Your task to perform on an android device: open app "The Home Depot" (install if not already installed) and enter user name: "taproot@icloud.com" and password: "executions" Image 0: 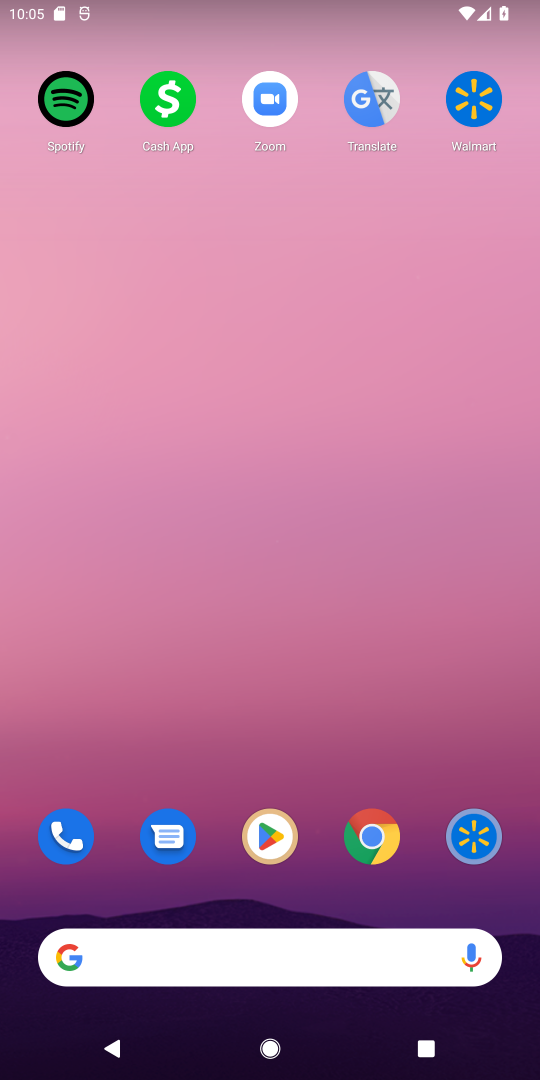
Step 0: click (268, 855)
Your task to perform on an android device: open app "The Home Depot" (install if not already installed) and enter user name: "taproot@icloud.com" and password: "executions" Image 1: 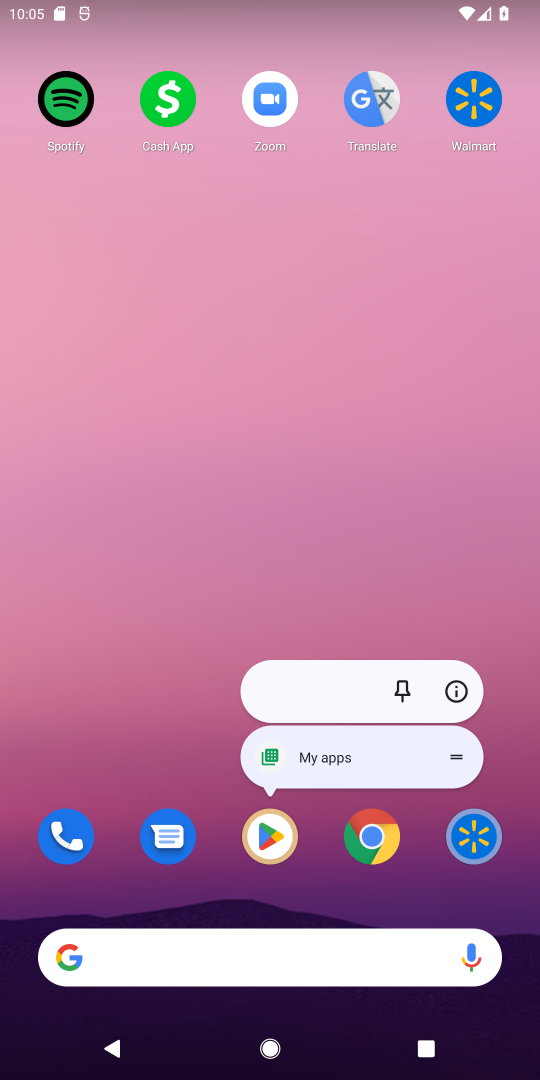
Step 1: click (268, 855)
Your task to perform on an android device: open app "The Home Depot" (install if not already installed) and enter user name: "taproot@icloud.com" and password: "executions" Image 2: 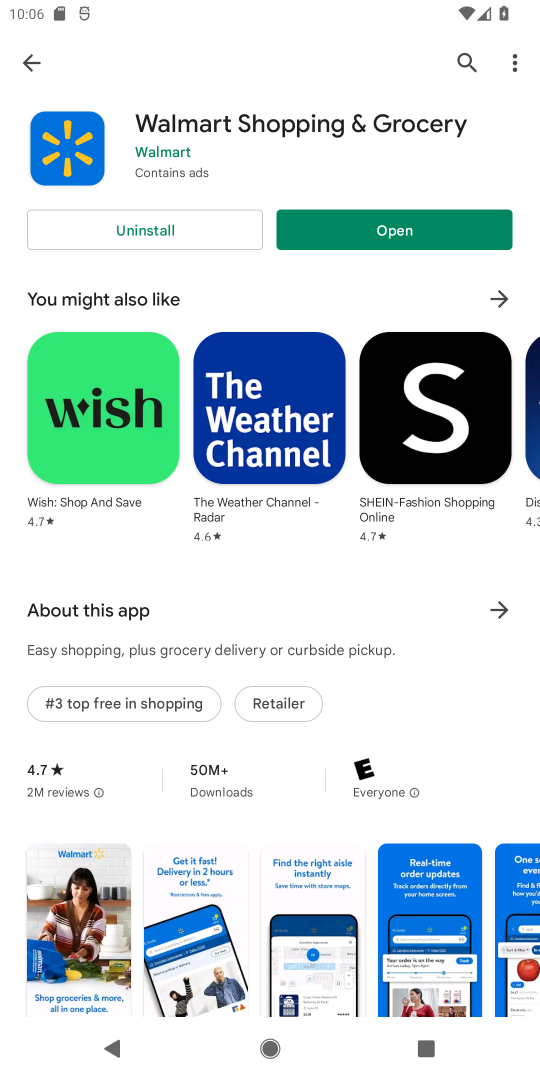
Step 2: click (457, 51)
Your task to perform on an android device: open app "The Home Depot" (install if not already installed) and enter user name: "taproot@icloud.com" and password: "executions" Image 3: 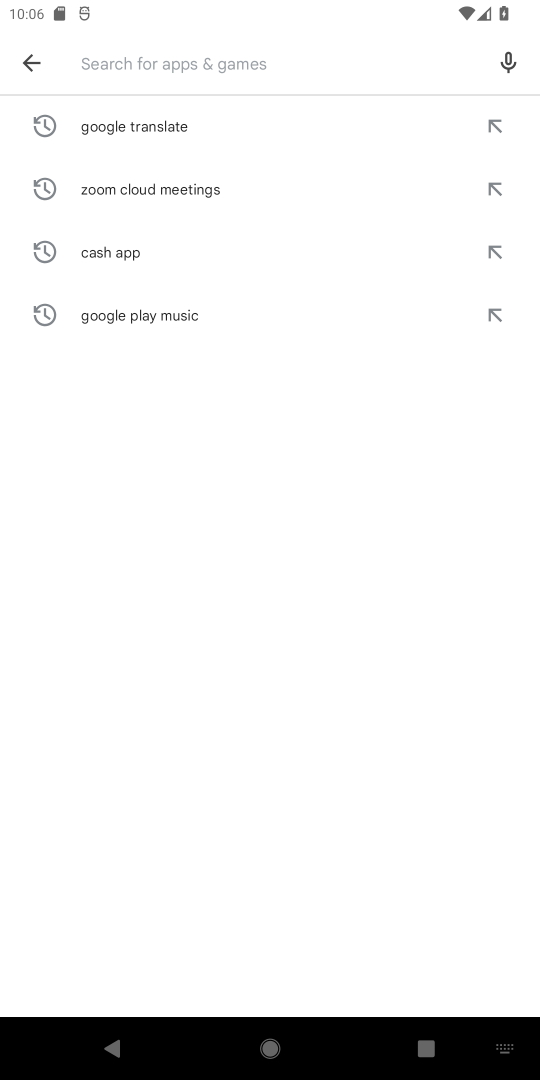
Step 3: type "The Home Depot"
Your task to perform on an android device: open app "The Home Depot" (install if not already installed) and enter user name: "taproot@icloud.com" and password: "executions" Image 4: 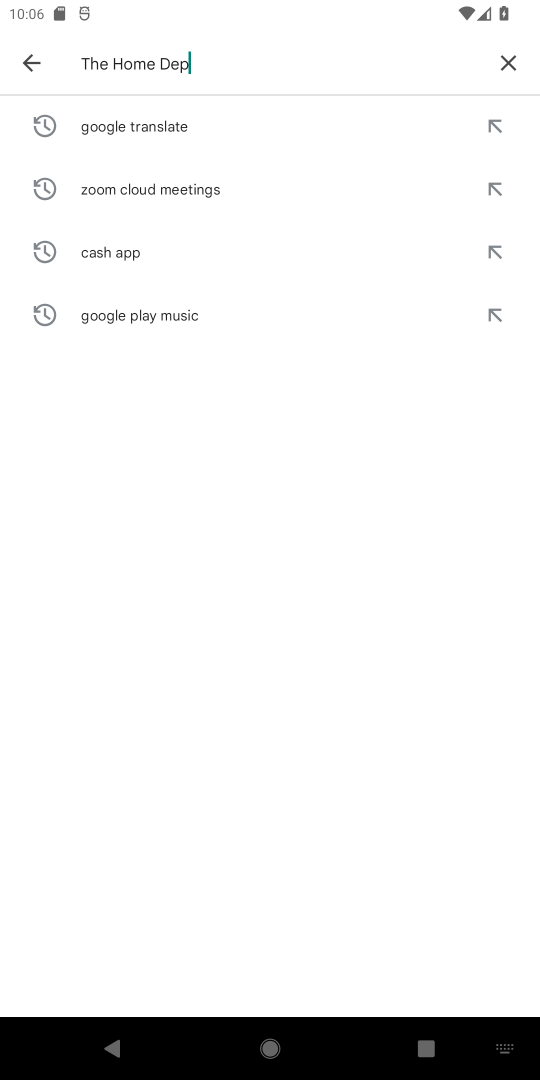
Step 4: type ""
Your task to perform on an android device: open app "The Home Depot" (install if not already installed) and enter user name: "taproot@icloud.com" and password: "executions" Image 5: 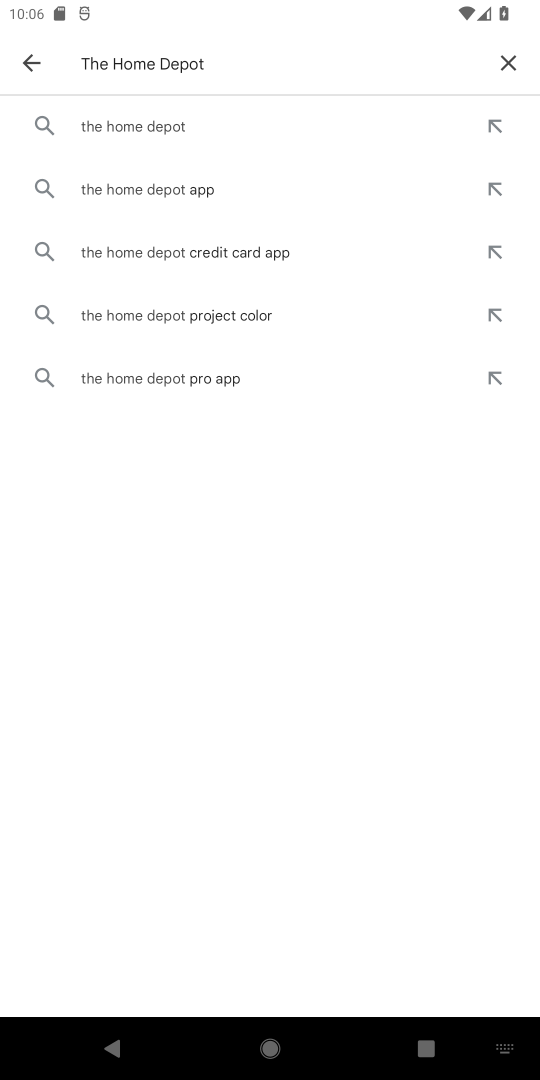
Step 5: click (177, 132)
Your task to perform on an android device: open app "The Home Depot" (install if not already installed) and enter user name: "taproot@icloud.com" and password: "executions" Image 6: 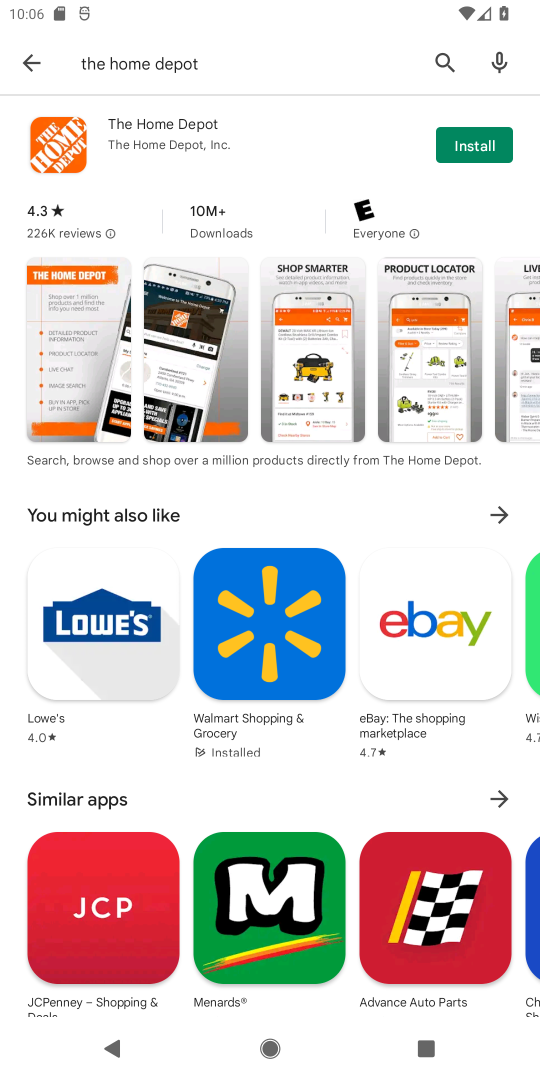
Step 6: click (471, 142)
Your task to perform on an android device: open app "The Home Depot" (install if not already installed) and enter user name: "taproot@icloud.com" and password: "executions" Image 7: 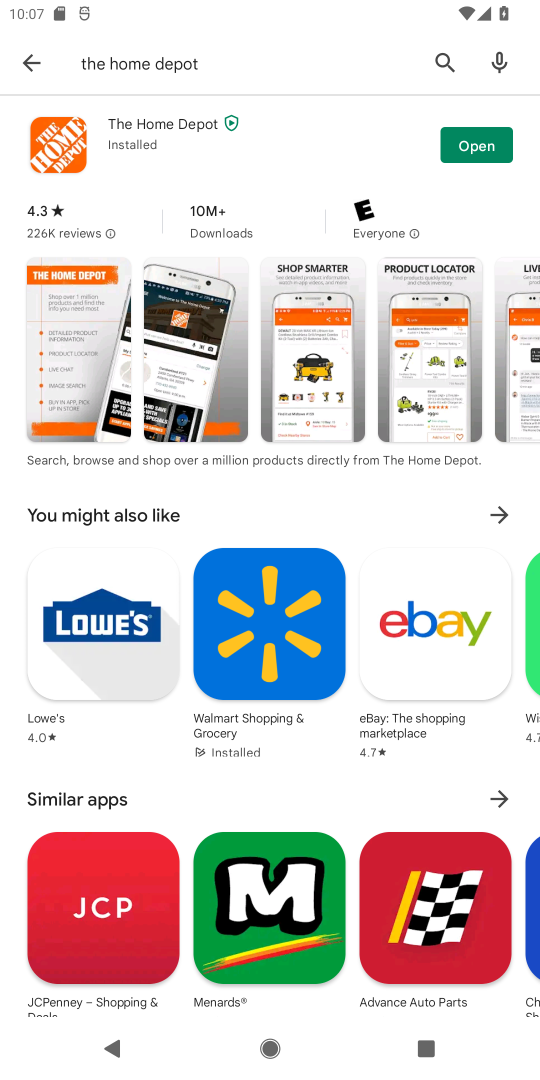
Step 7: click (489, 135)
Your task to perform on an android device: open app "The Home Depot" (install if not already installed) and enter user name: "taproot@icloud.com" and password: "executions" Image 8: 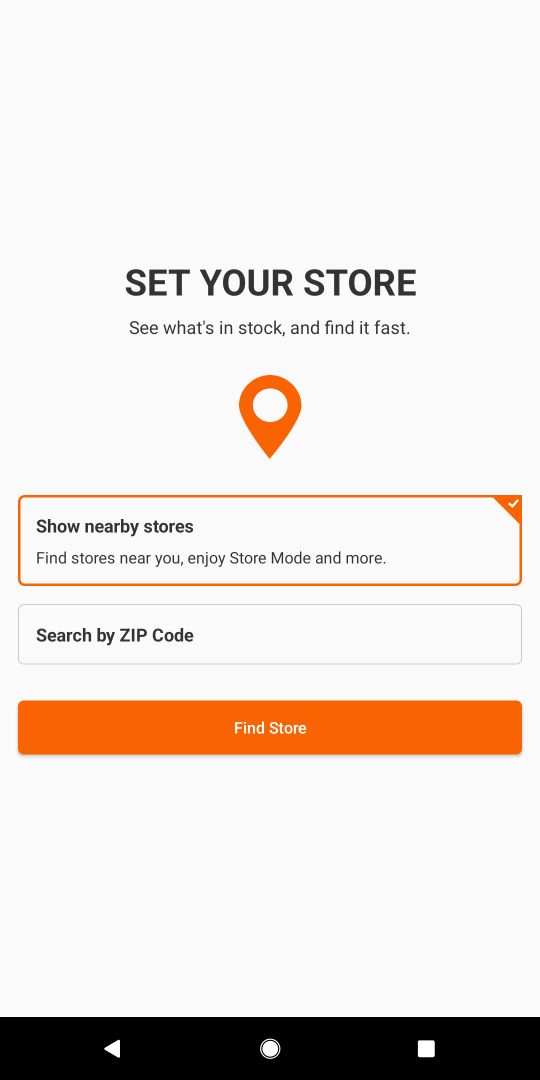
Step 8: task complete